Your task to perform on an android device: turn on sleep mode Image 0: 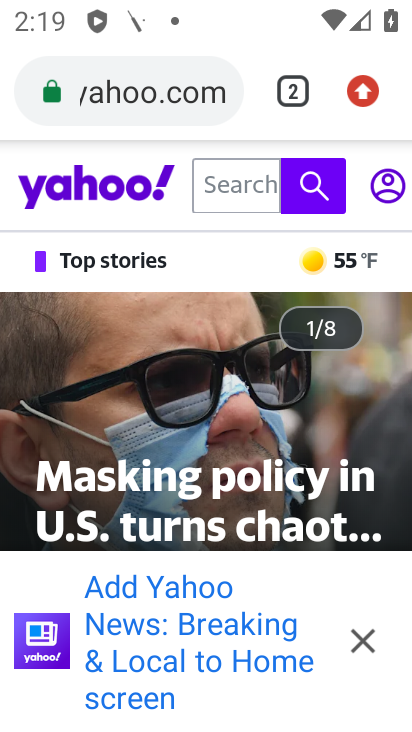
Step 0: press home button
Your task to perform on an android device: turn on sleep mode Image 1: 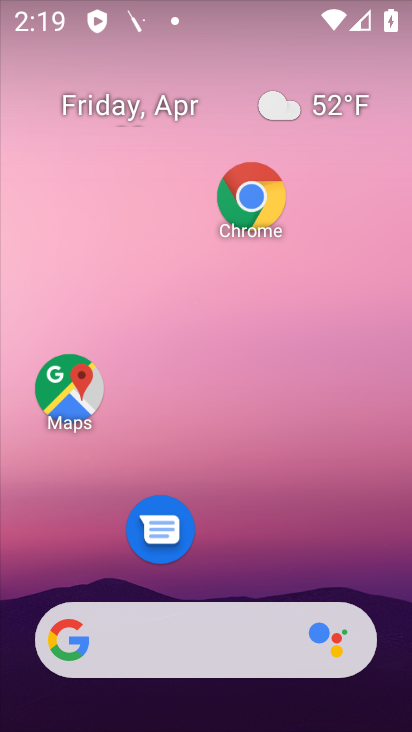
Step 1: drag from (242, 581) to (300, 160)
Your task to perform on an android device: turn on sleep mode Image 2: 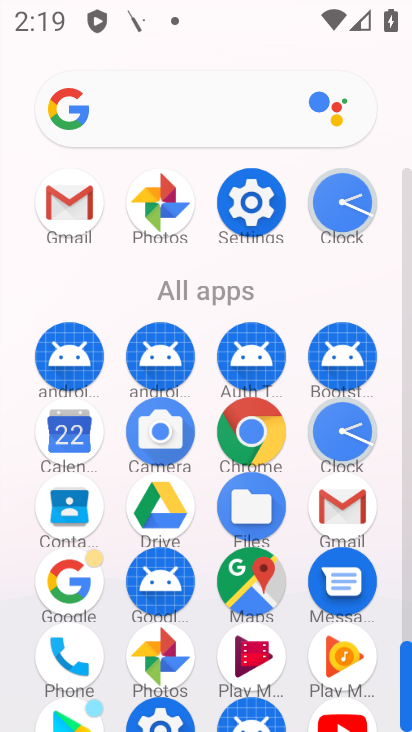
Step 2: click (261, 192)
Your task to perform on an android device: turn on sleep mode Image 3: 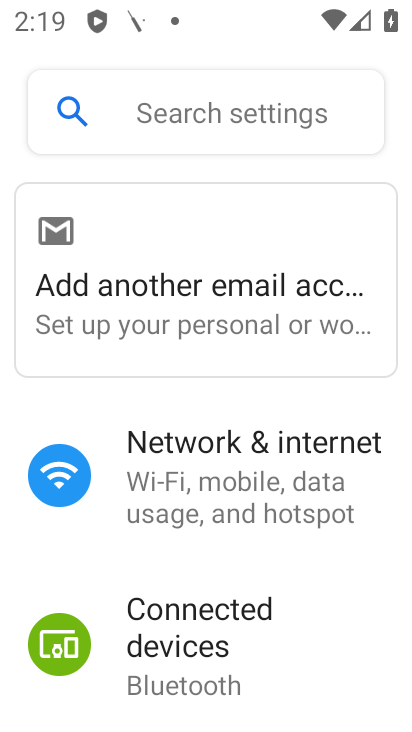
Step 3: drag from (271, 590) to (310, 253)
Your task to perform on an android device: turn on sleep mode Image 4: 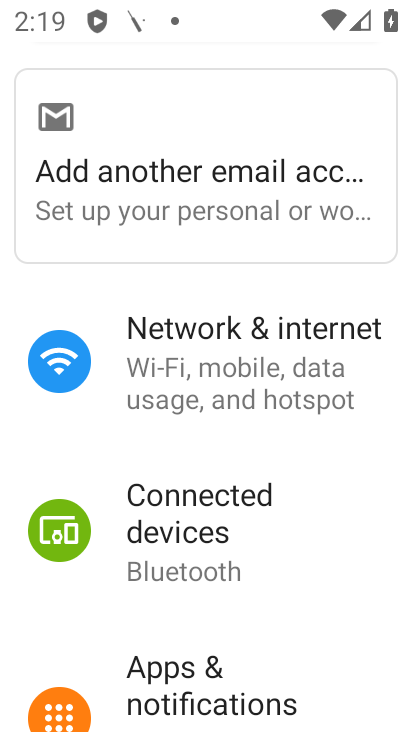
Step 4: drag from (268, 609) to (290, 356)
Your task to perform on an android device: turn on sleep mode Image 5: 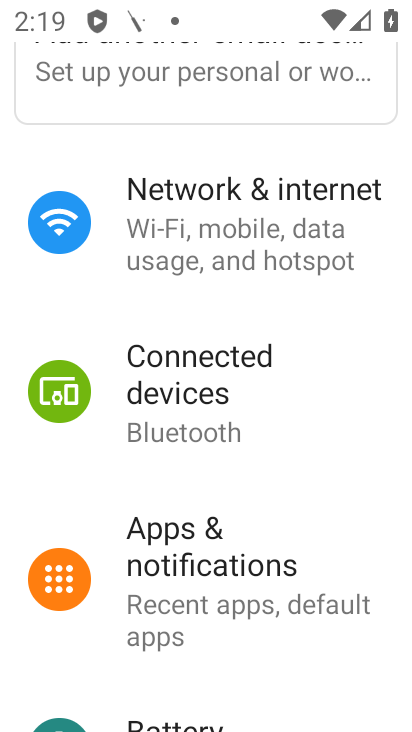
Step 5: drag from (257, 475) to (257, 352)
Your task to perform on an android device: turn on sleep mode Image 6: 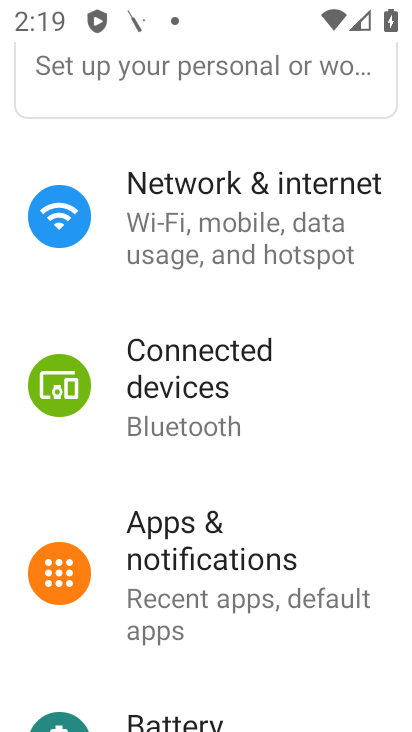
Step 6: drag from (271, 545) to (280, 407)
Your task to perform on an android device: turn on sleep mode Image 7: 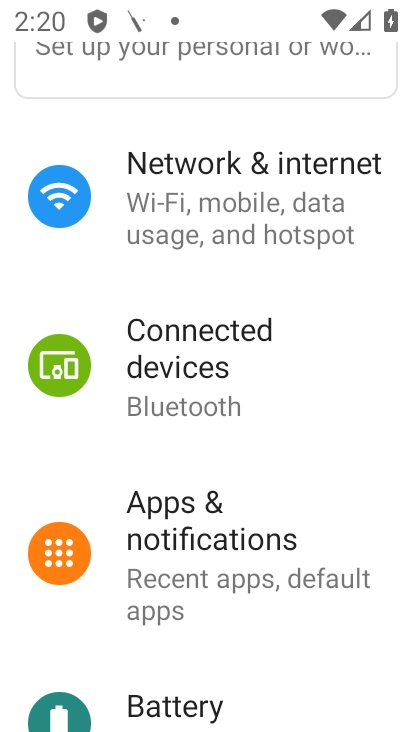
Step 7: drag from (269, 556) to (279, 338)
Your task to perform on an android device: turn on sleep mode Image 8: 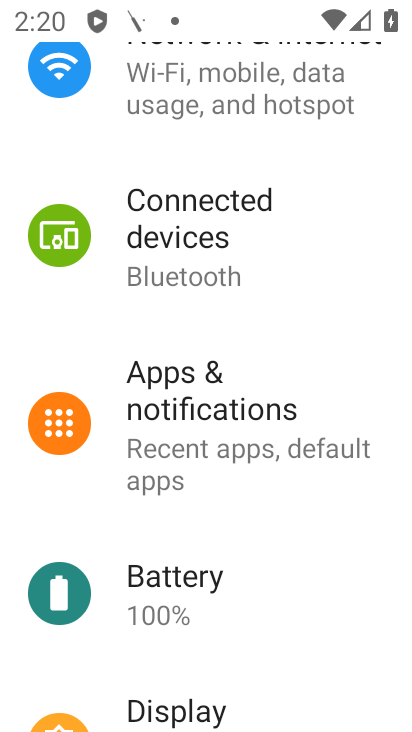
Step 8: drag from (286, 508) to (290, 319)
Your task to perform on an android device: turn on sleep mode Image 9: 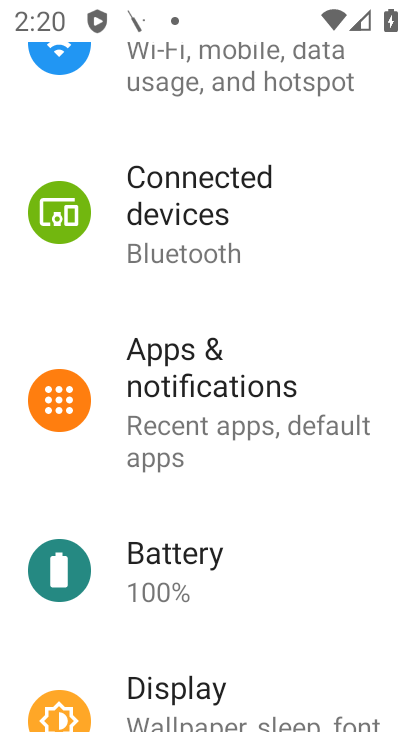
Step 9: drag from (288, 555) to (299, 314)
Your task to perform on an android device: turn on sleep mode Image 10: 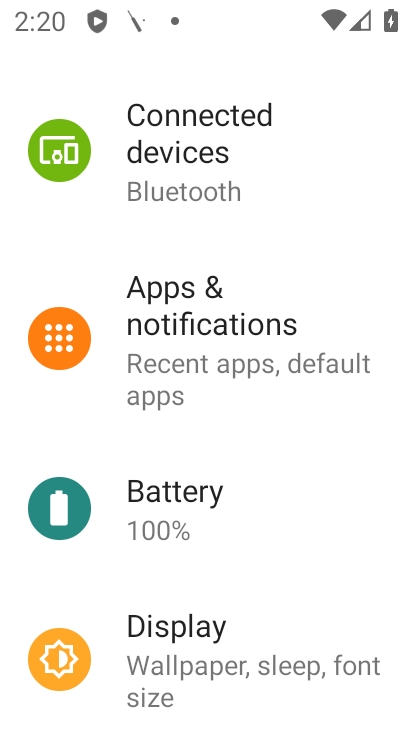
Step 10: click (254, 628)
Your task to perform on an android device: turn on sleep mode Image 11: 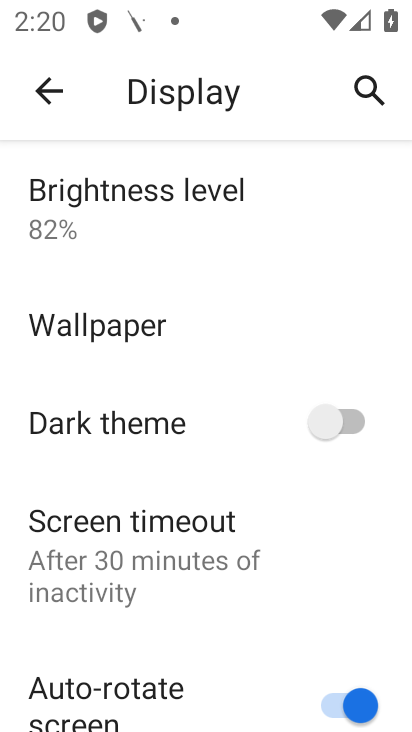
Step 11: click (206, 559)
Your task to perform on an android device: turn on sleep mode Image 12: 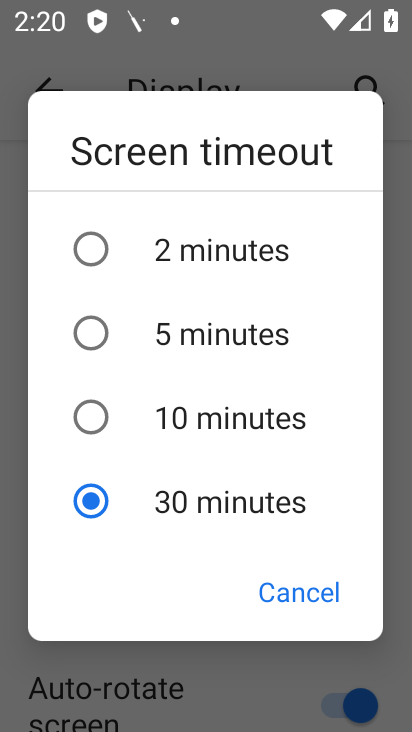
Step 12: click (201, 345)
Your task to perform on an android device: turn on sleep mode Image 13: 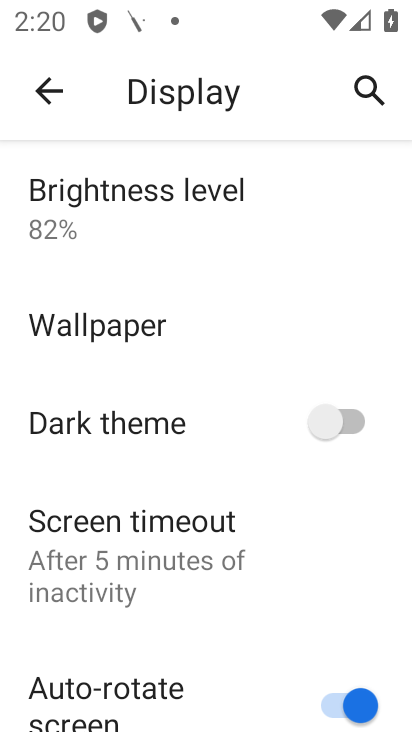
Step 13: task complete